Your task to perform on an android device: Open eBay Image 0: 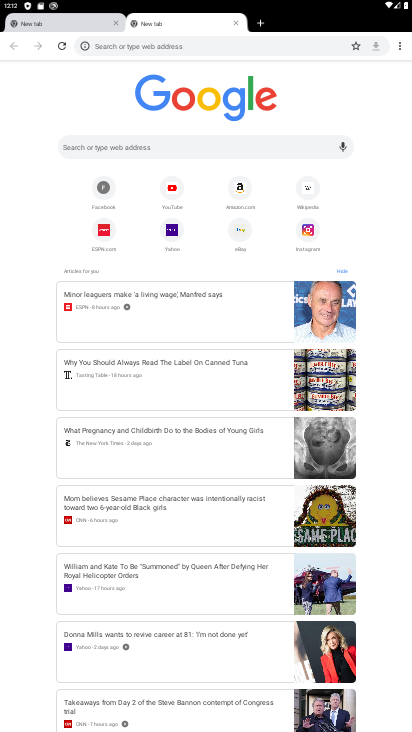
Step 0: click (240, 233)
Your task to perform on an android device: Open eBay Image 1: 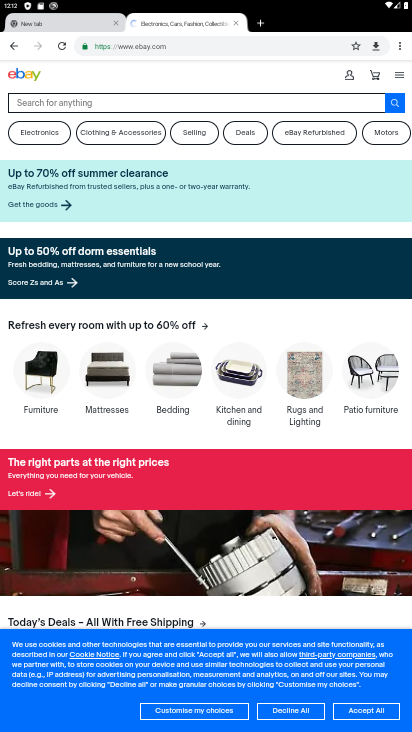
Step 1: task complete